Your task to perform on an android device: turn pop-ups on in chrome Image 0: 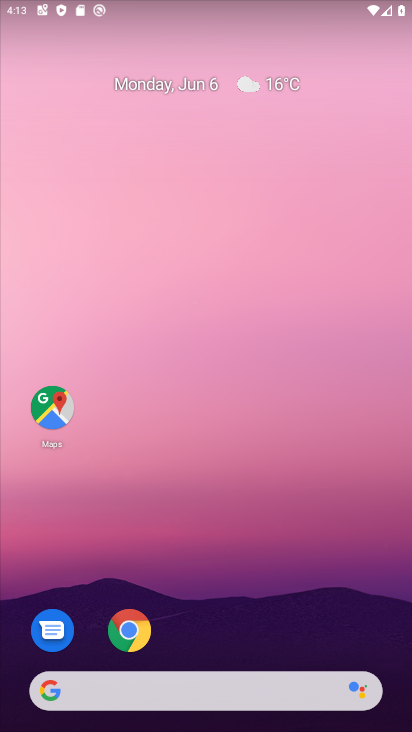
Step 0: drag from (248, 592) to (271, 52)
Your task to perform on an android device: turn pop-ups on in chrome Image 1: 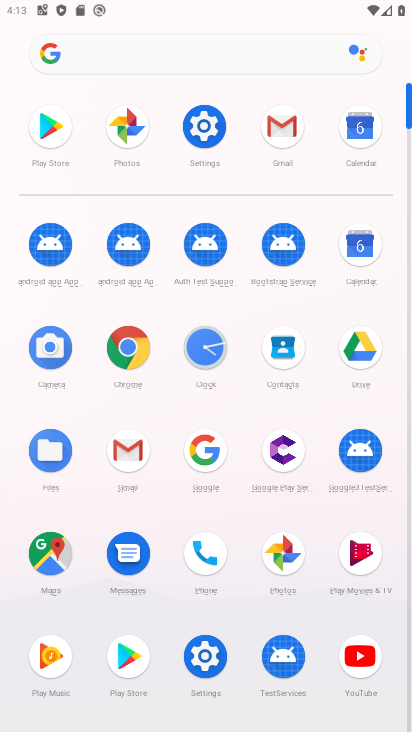
Step 1: click (145, 341)
Your task to perform on an android device: turn pop-ups on in chrome Image 2: 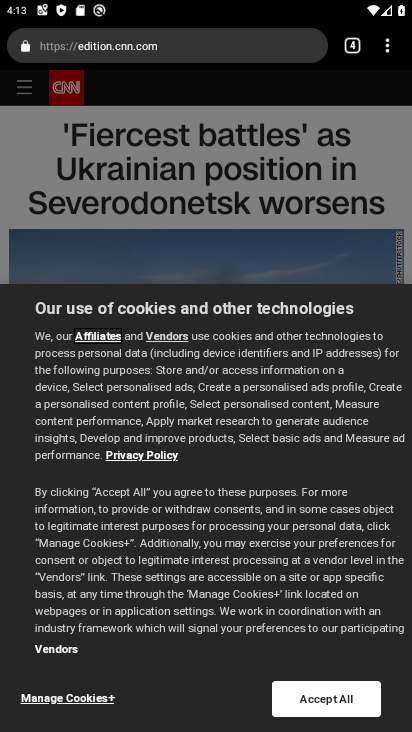
Step 2: drag from (388, 57) to (263, 503)
Your task to perform on an android device: turn pop-ups on in chrome Image 3: 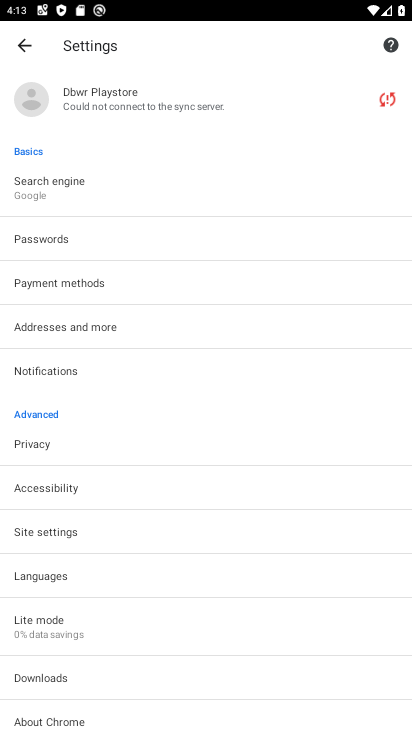
Step 3: click (56, 530)
Your task to perform on an android device: turn pop-ups on in chrome Image 4: 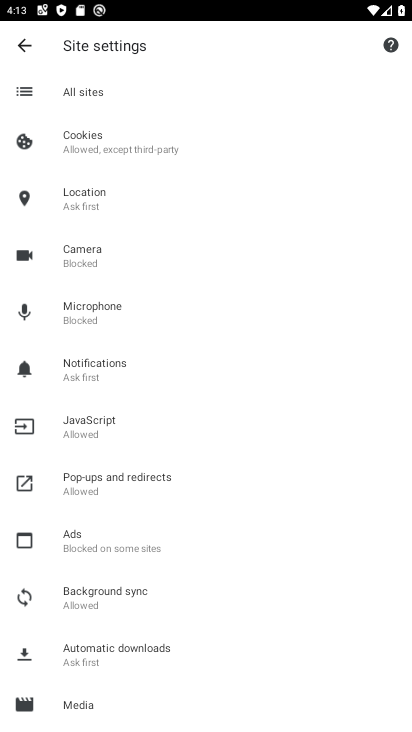
Step 4: click (131, 468)
Your task to perform on an android device: turn pop-ups on in chrome Image 5: 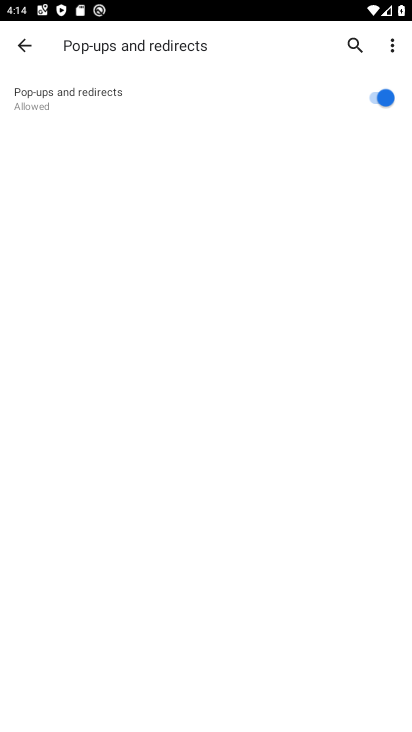
Step 5: task complete